Your task to perform on an android device: turn on wifi Image 0: 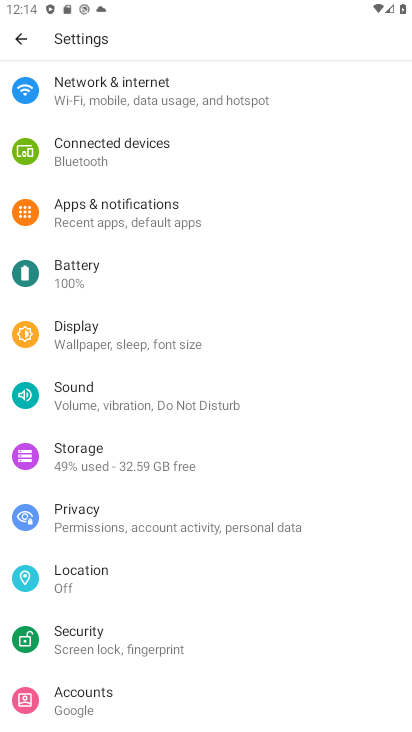
Step 0: press home button
Your task to perform on an android device: turn on wifi Image 1: 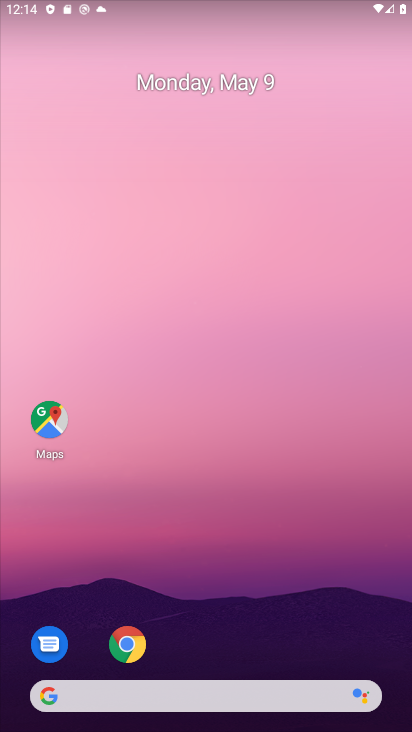
Step 1: task complete